Your task to perform on an android device: Go to Yahoo.com Image 0: 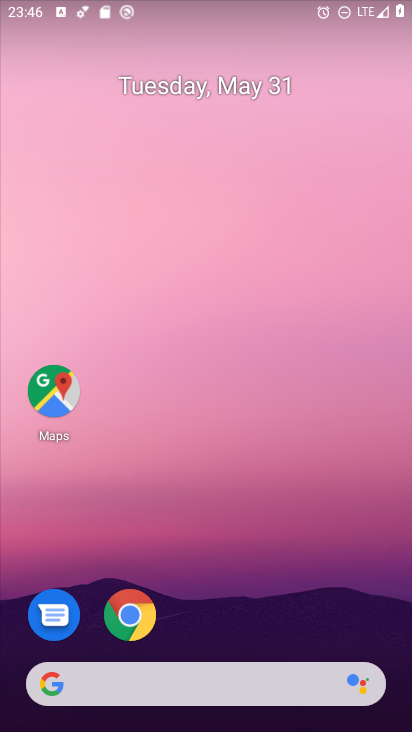
Step 0: click (136, 616)
Your task to perform on an android device: Go to Yahoo.com Image 1: 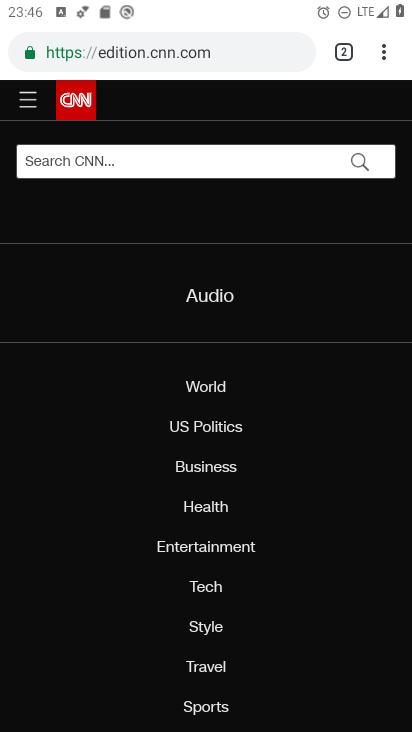
Step 1: click (257, 54)
Your task to perform on an android device: Go to Yahoo.com Image 2: 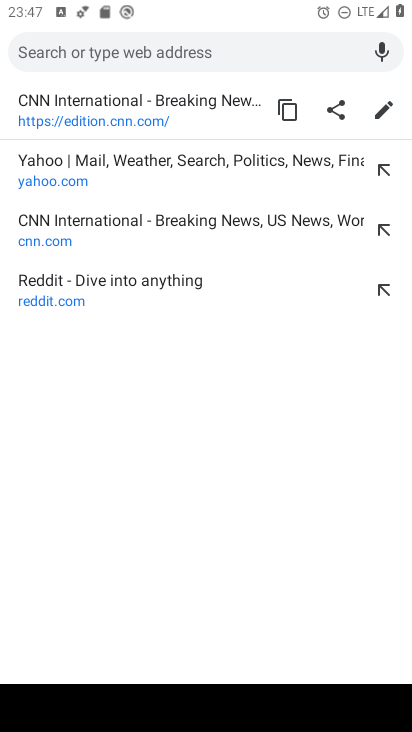
Step 2: type "yahoo.com"
Your task to perform on an android device: Go to Yahoo.com Image 3: 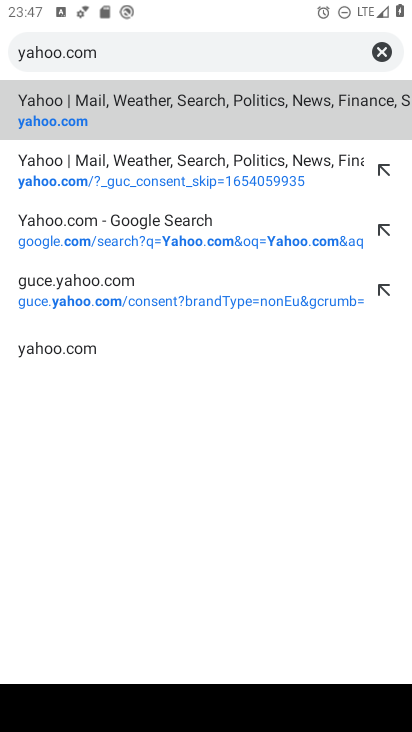
Step 3: click (114, 98)
Your task to perform on an android device: Go to Yahoo.com Image 4: 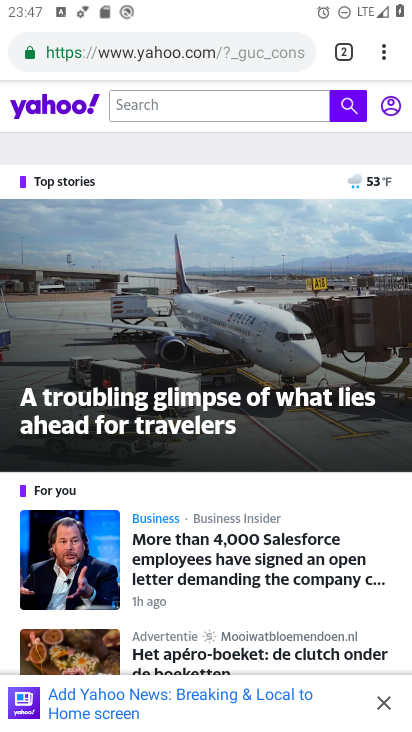
Step 4: task complete